Your task to perform on an android device: open app "Chime – Mobile Banking" (install if not already installed) Image 0: 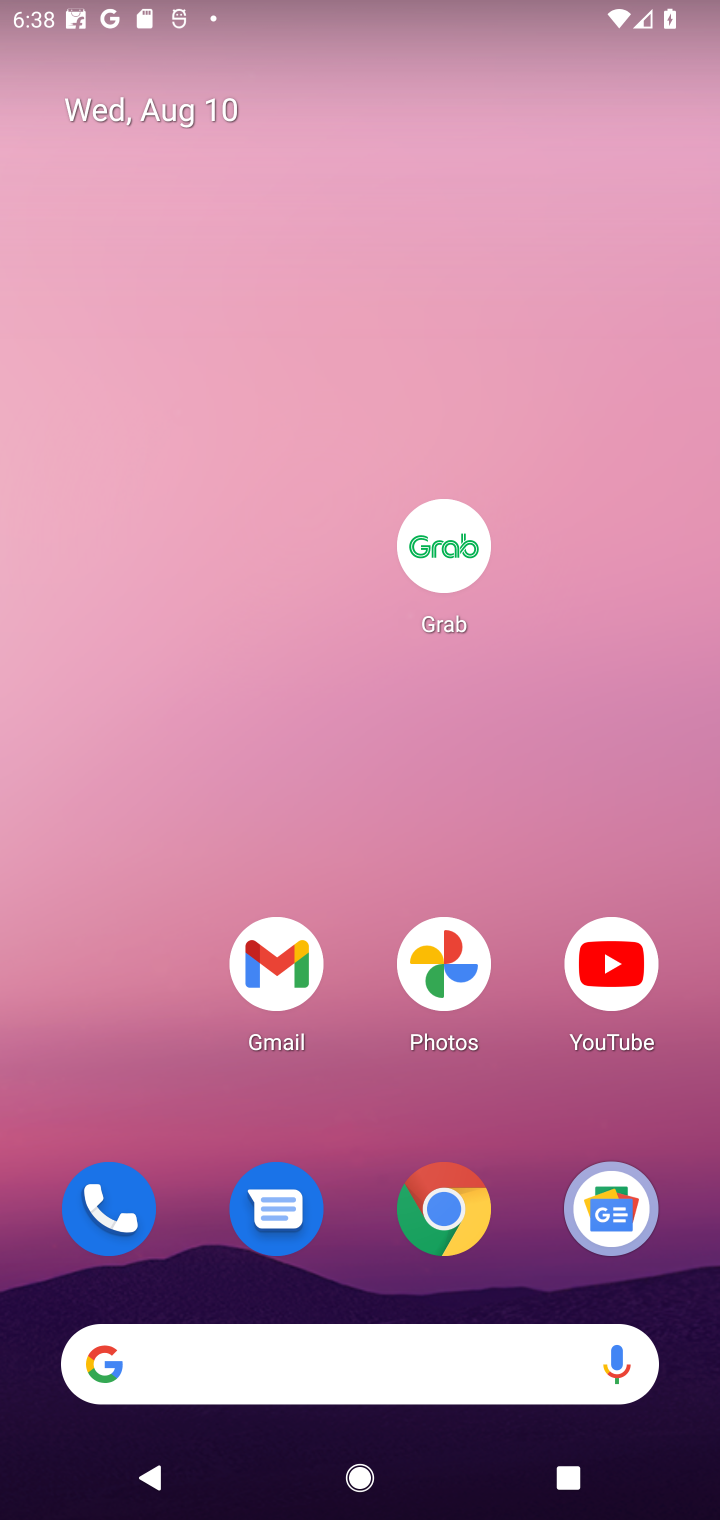
Step 0: drag from (338, 1265) to (292, 59)
Your task to perform on an android device: open app "Chime – Mobile Banking" (install if not already installed) Image 1: 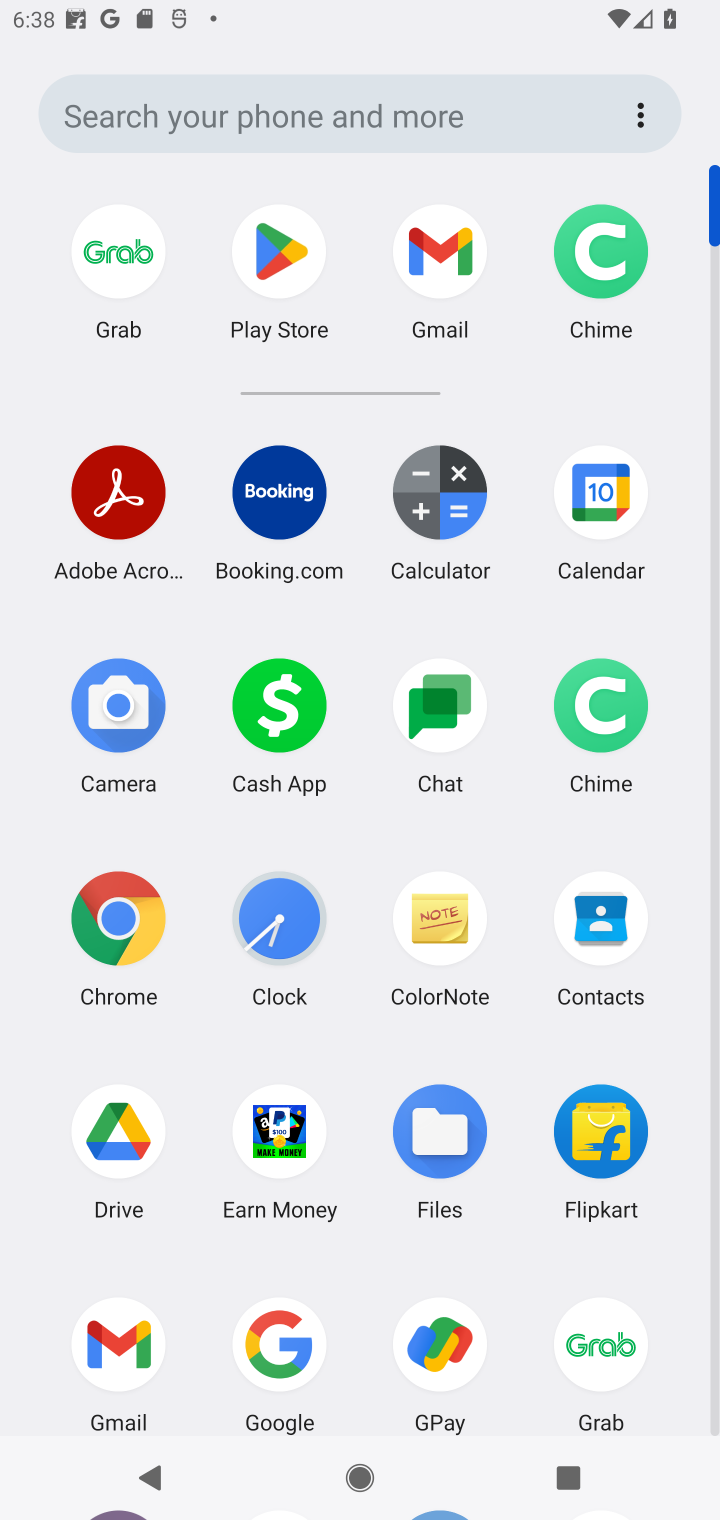
Step 1: click (390, 113)
Your task to perform on an android device: open app "Chime – Mobile Banking" (install if not already installed) Image 2: 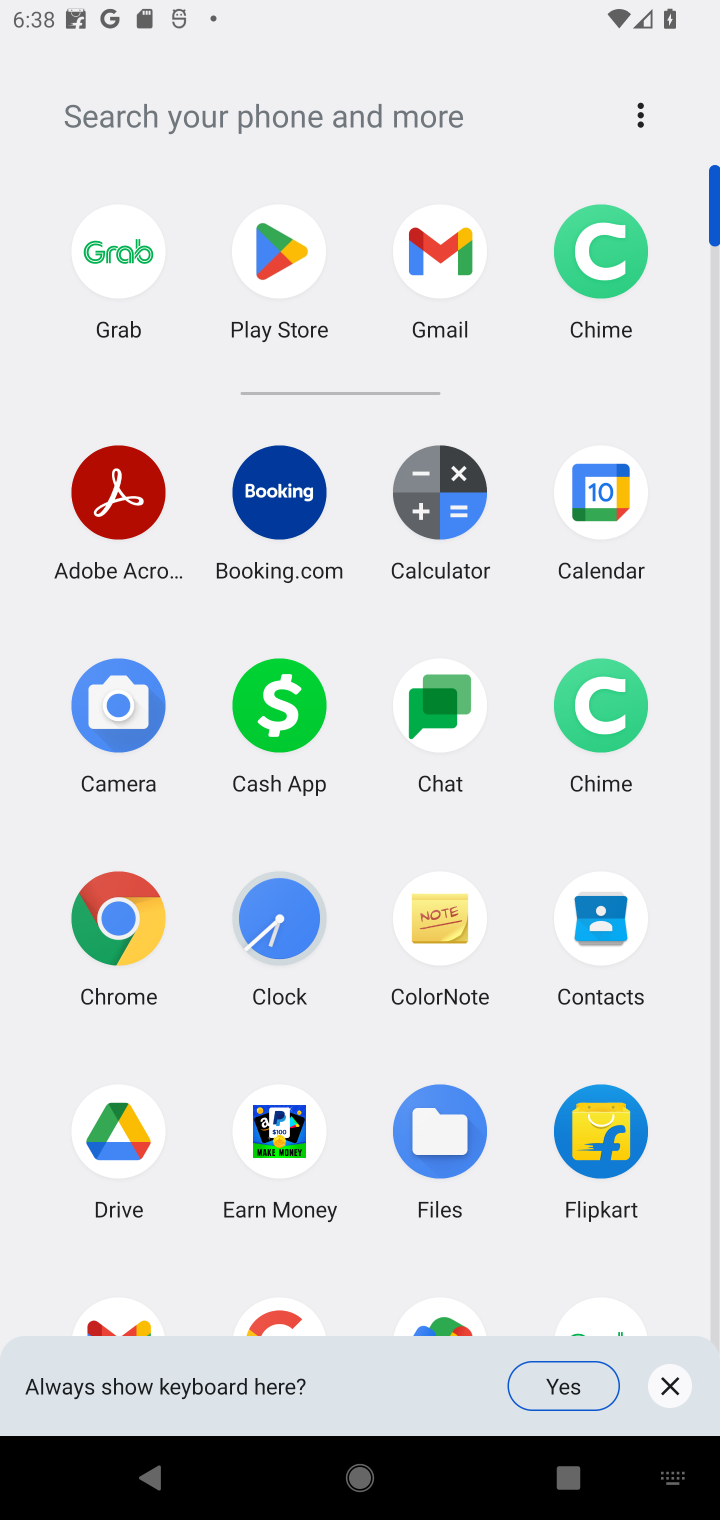
Step 2: type "chime"
Your task to perform on an android device: open app "Chime – Mobile Banking" (install if not already installed) Image 3: 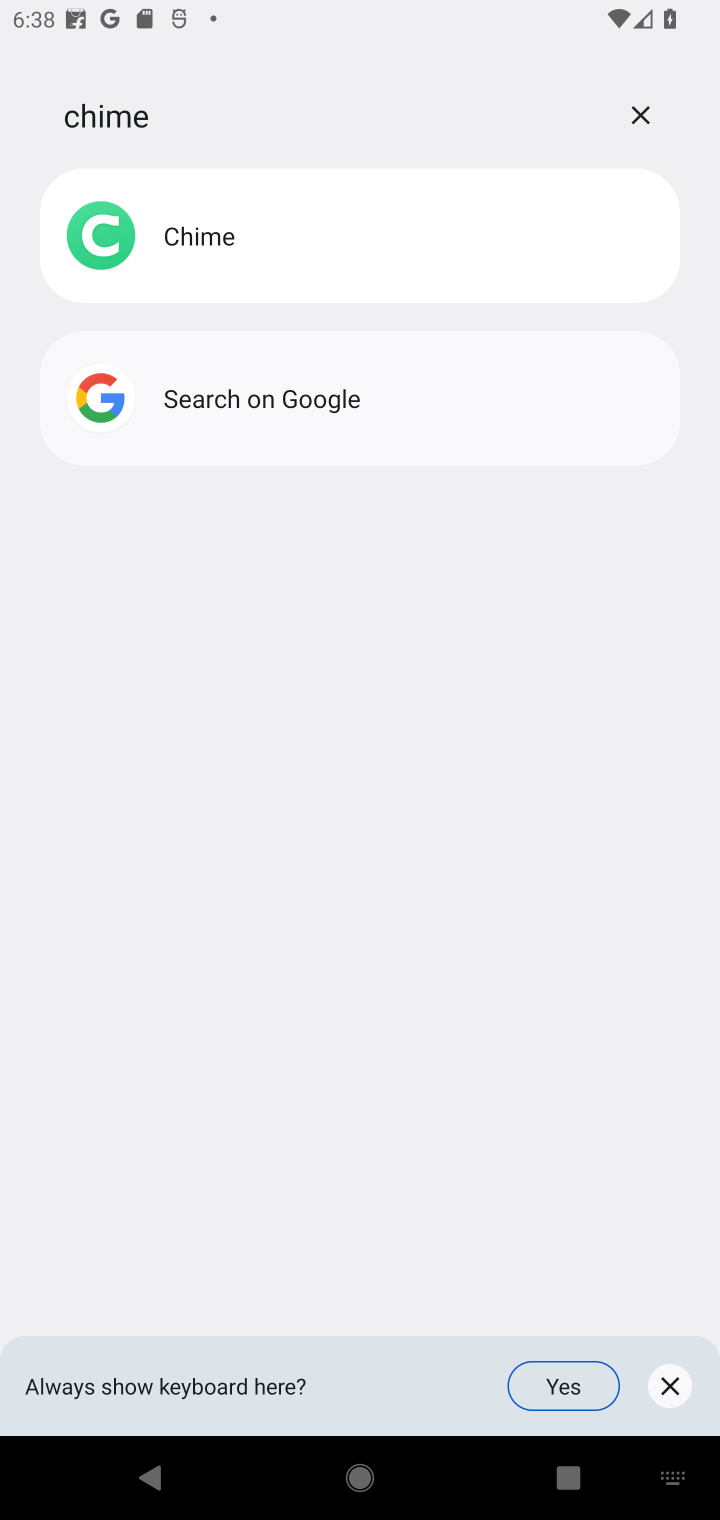
Step 3: click (255, 276)
Your task to perform on an android device: open app "Chime – Mobile Banking" (install if not already installed) Image 4: 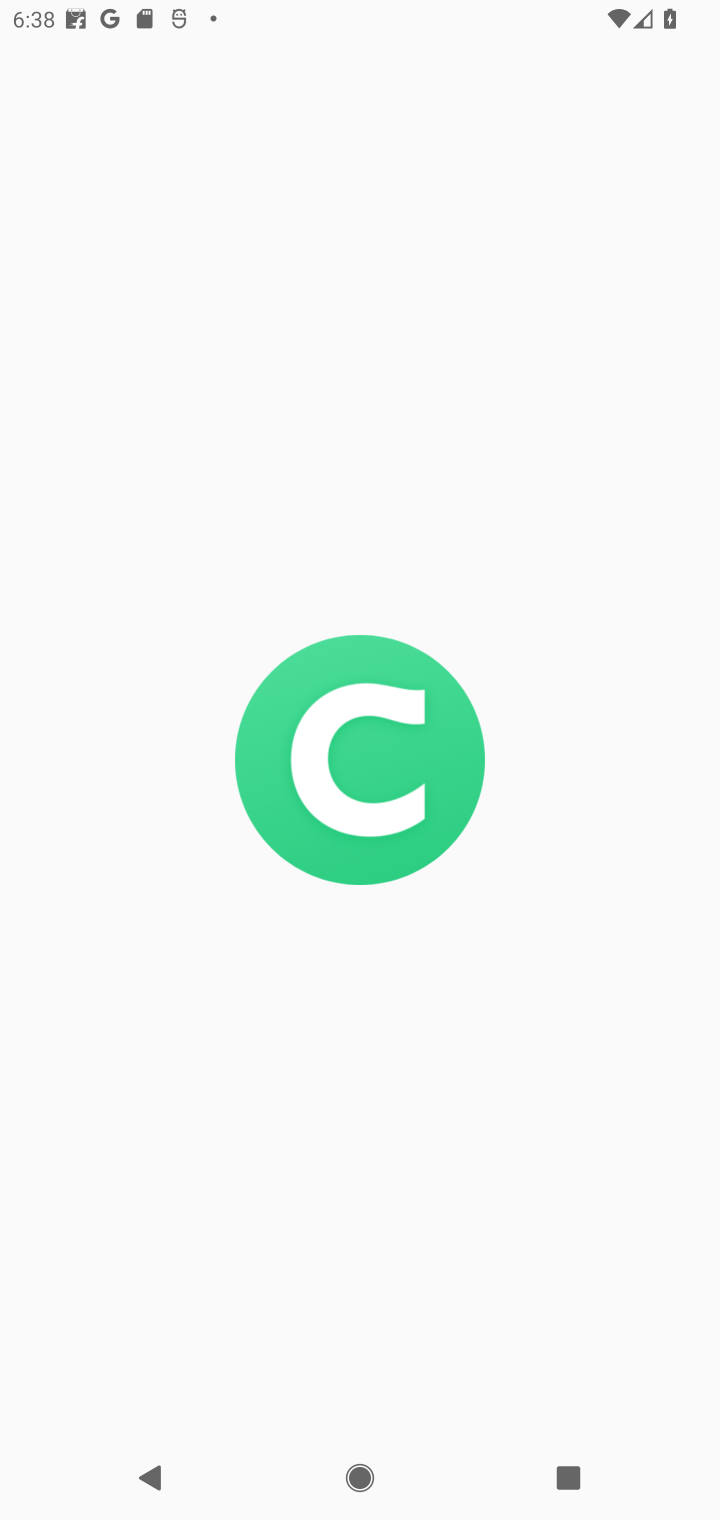
Step 4: task complete